Your task to perform on an android device: Go to privacy settings Image 0: 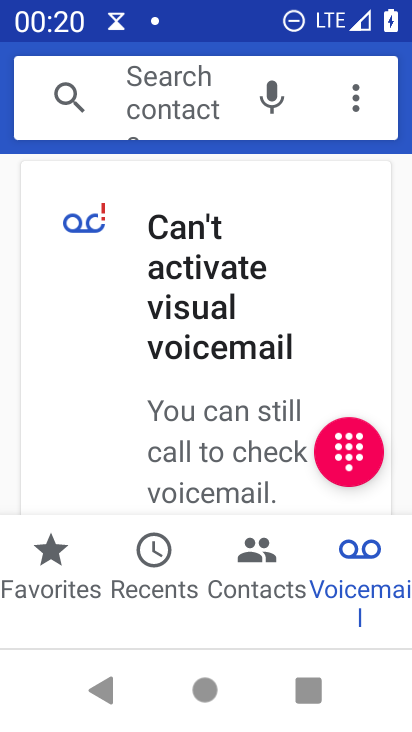
Step 0: press home button
Your task to perform on an android device: Go to privacy settings Image 1: 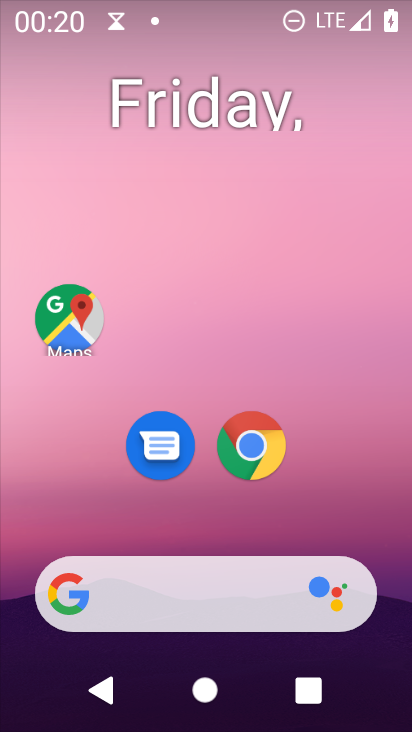
Step 1: drag from (222, 715) to (218, 92)
Your task to perform on an android device: Go to privacy settings Image 2: 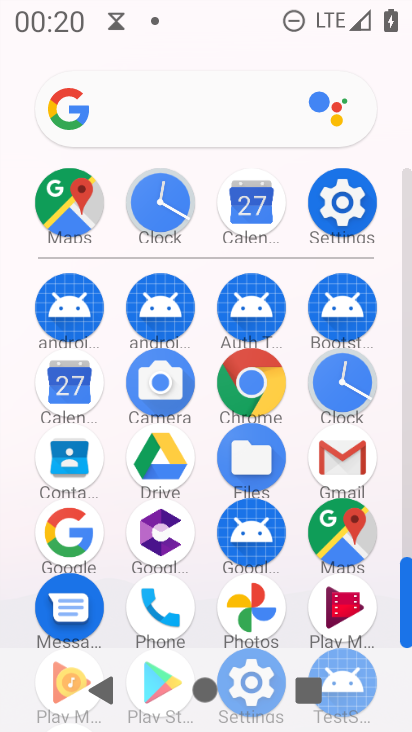
Step 2: click (335, 208)
Your task to perform on an android device: Go to privacy settings Image 3: 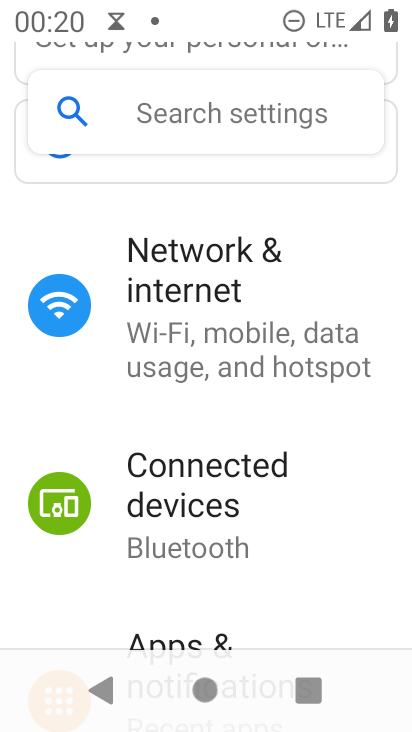
Step 3: drag from (280, 628) to (287, 203)
Your task to perform on an android device: Go to privacy settings Image 4: 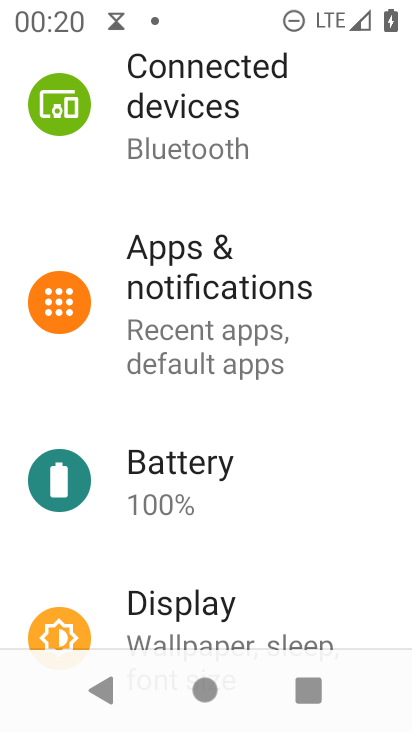
Step 4: drag from (289, 619) to (289, 113)
Your task to perform on an android device: Go to privacy settings Image 5: 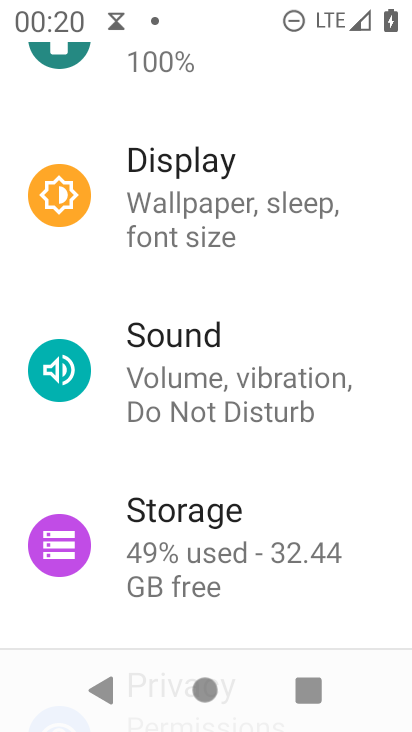
Step 5: drag from (270, 635) to (241, 180)
Your task to perform on an android device: Go to privacy settings Image 6: 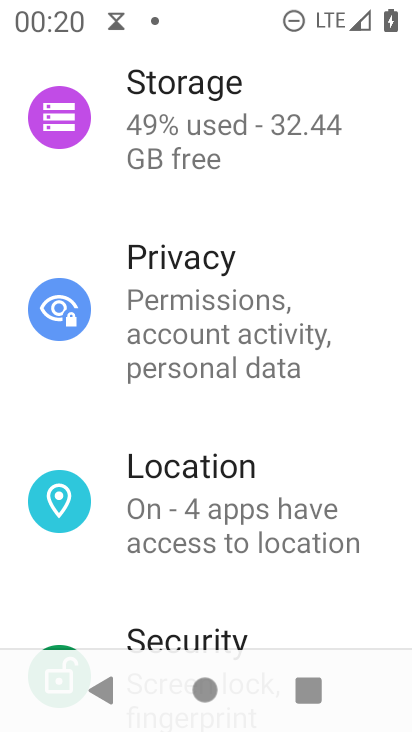
Step 6: click (193, 315)
Your task to perform on an android device: Go to privacy settings Image 7: 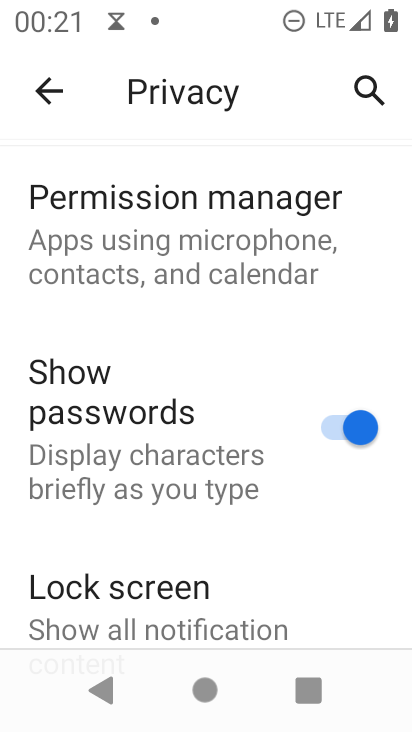
Step 7: task complete